Your task to perform on an android device: turn on data saver in the chrome app Image 0: 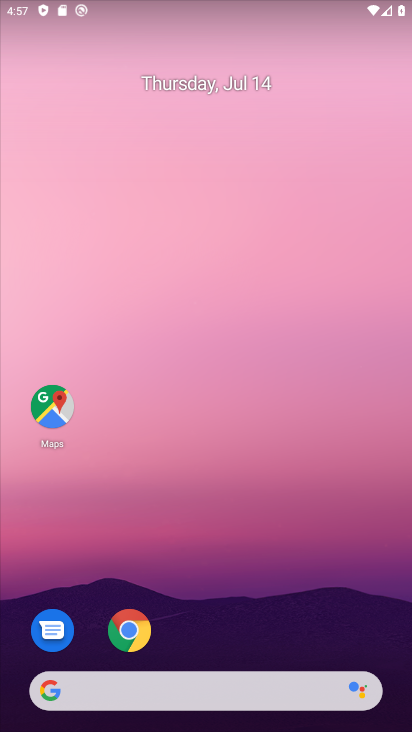
Step 0: press home button
Your task to perform on an android device: turn on data saver in the chrome app Image 1: 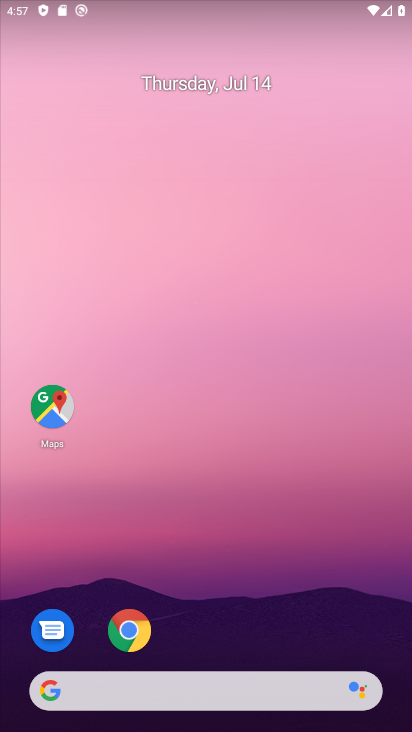
Step 1: drag from (260, 631) to (245, 135)
Your task to perform on an android device: turn on data saver in the chrome app Image 2: 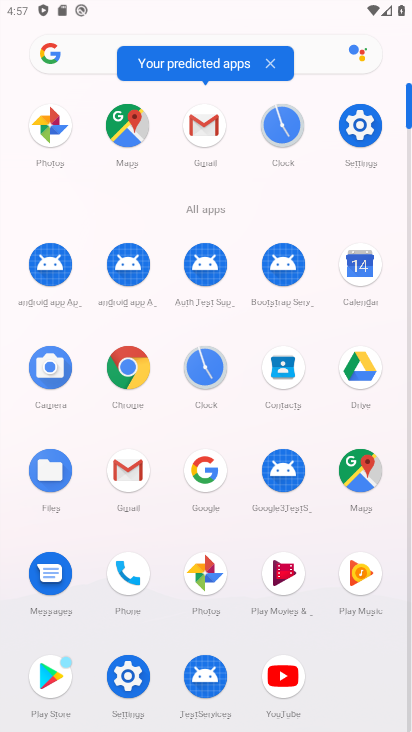
Step 2: click (129, 374)
Your task to perform on an android device: turn on data saver in the chrome app Image 3: 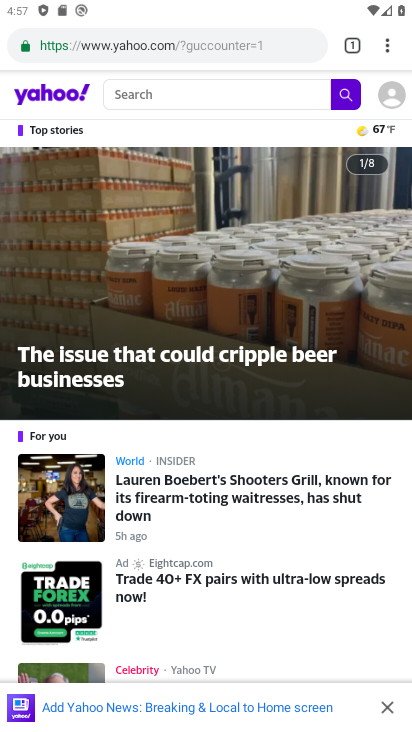
Step 3: drag from (391, 43) to (225, 554)
Your task to perform on an android device: turn on data saver in the chrome app Image 4: 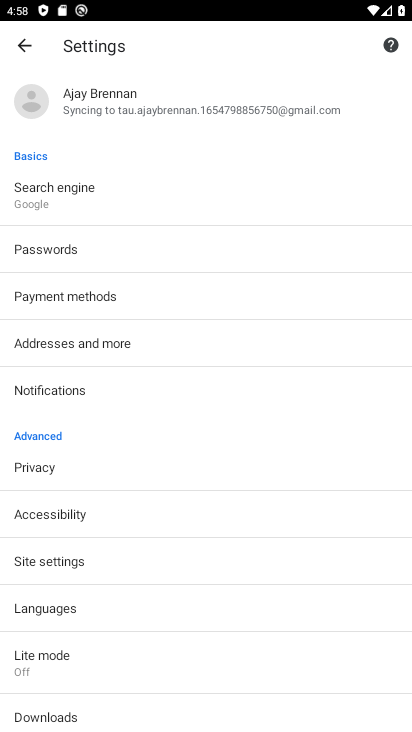
Step 4: click (39, 655)
Your task to perform on an android device: turn on data saver in the chrome app Image 5: 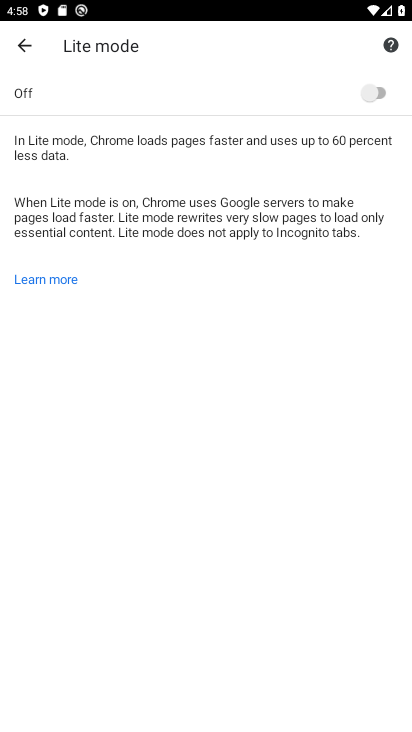
Step 5: click (369, 89)
Your task to perform on an android device: turn on data saver in the chrome app Image 6: 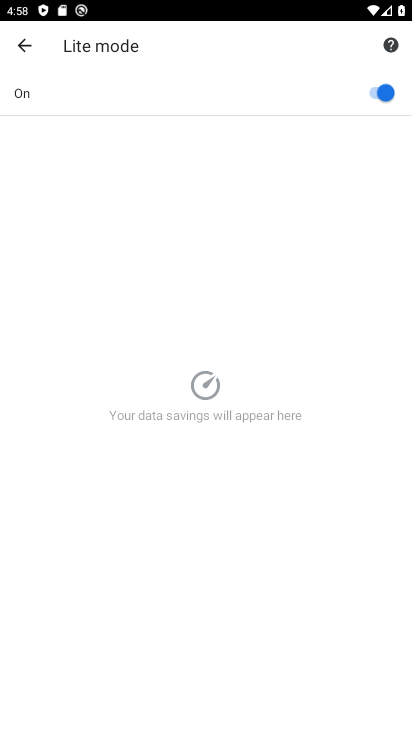
Step 6: task complete